Your task to perform on an android device: toggle improve location accuracy Image 0: 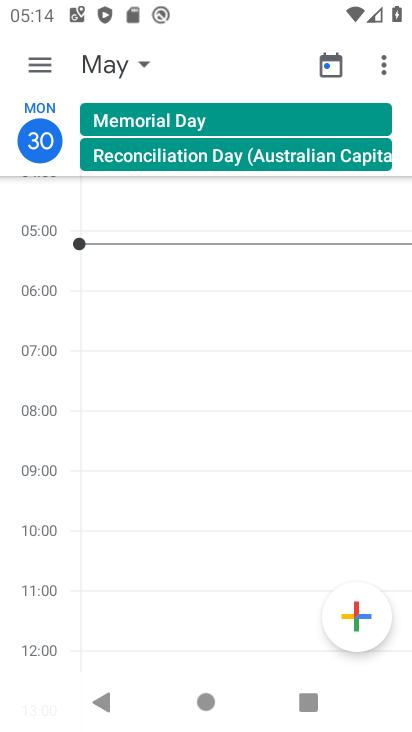
Step 0: press home button
Your task to perform on an android device: toggle improve location accuracy Image 1: 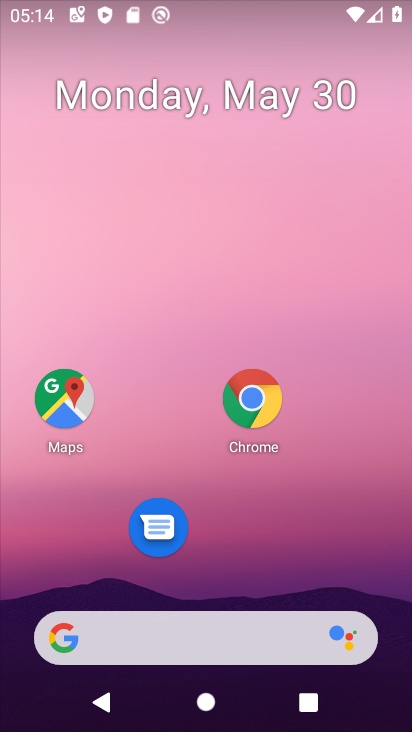
Step 1: drag from (240, 675) to (242, 106)
Your task to perform on an android device: toggle improve location accuracy Image 2: 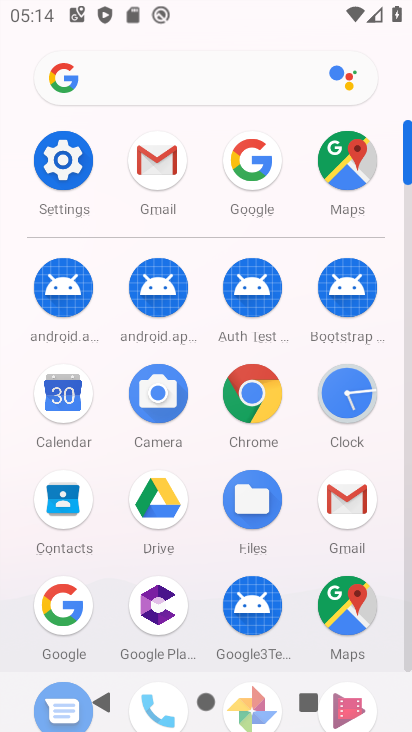
Step 2: click (67, 136)
Your task to perform on an android device: toggle improve location accuracy Image 3: 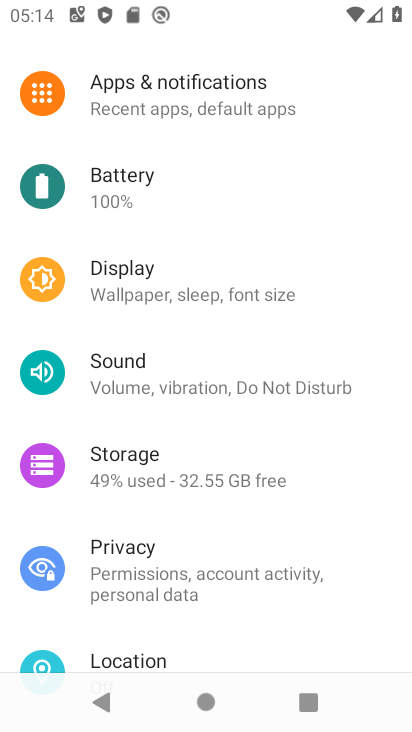
Step 3: click (124, 652)
Your task to perform on an android device: toggle improve location accuracy Image 4: 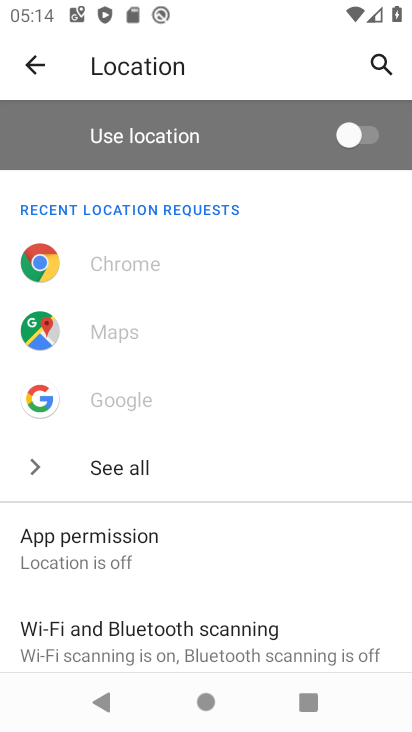
Step 4: drag from (159, 614) to (161, 510)
Your task to perform on an android device: toggle improve location accuracy Image 5: 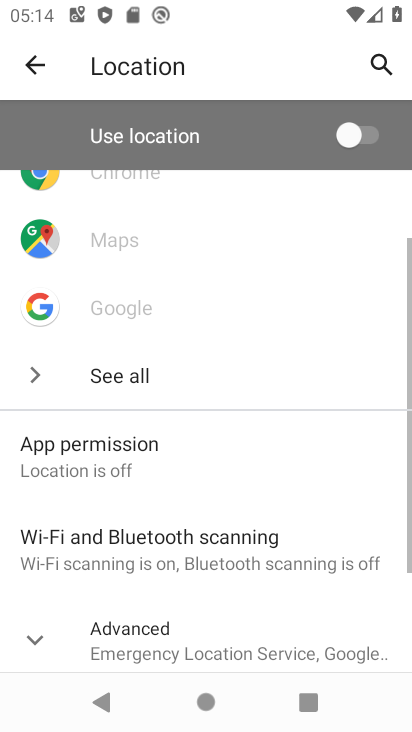
Step 5: drag from (165, 472) to (166, 342)
Your task to perform on an android device: toggle improve location accuracy Image 6: 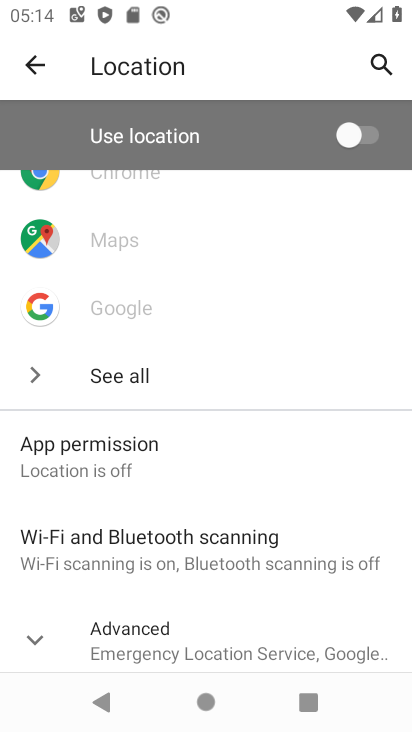
Step 6: click (153, 633)
Your task to perform on an android device: toggle improve location accuracy Image 7: 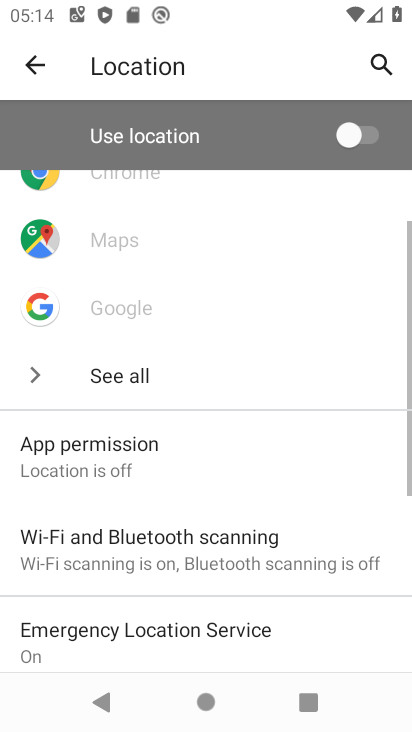
Step 7: drag from (157, 646) to (178, 373)
Your task to perform on an android device: toggle improve location accuracy Image 8: 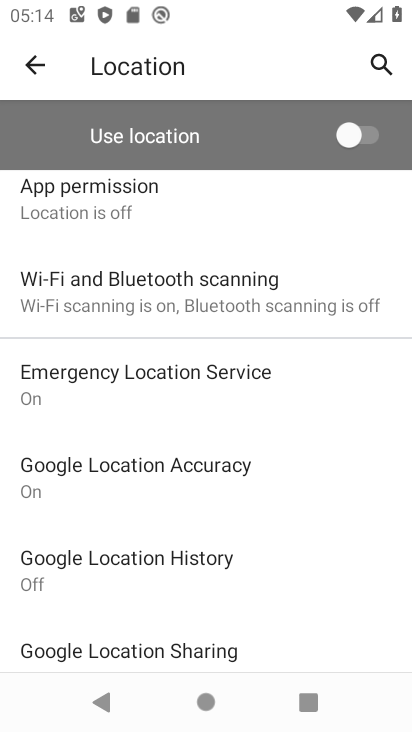
Step 8: click (177, 465)
Your task to perform on an android device: toggle improve location accuracy Image 9: 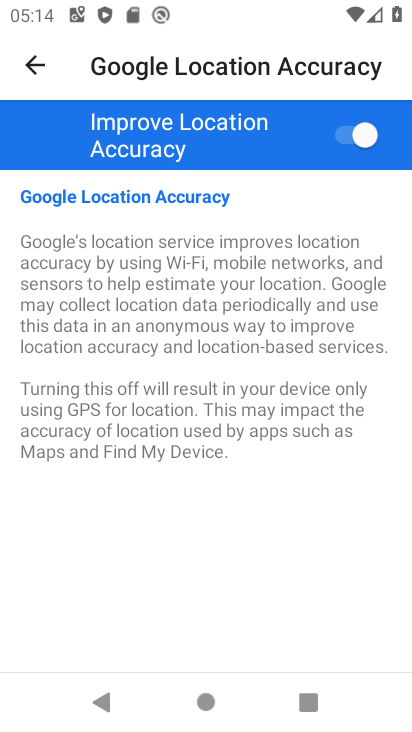
Step 9: click (348, 134)
Your task to perform on an android device: toggle improve location accuracy Image 10: 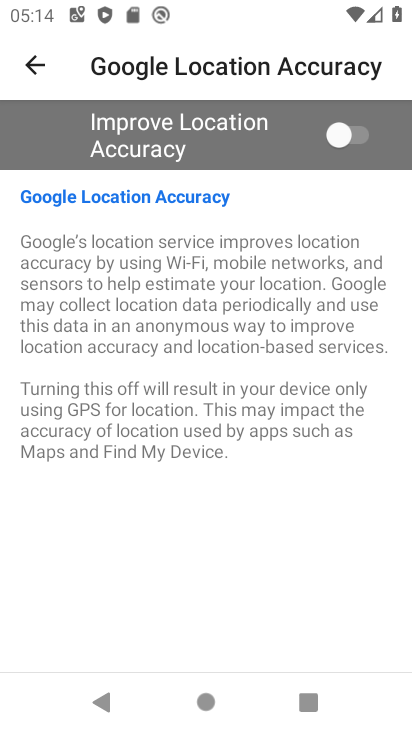
Step 10: task complete